Your task to perform on an android device: Go to Maps Image 0: 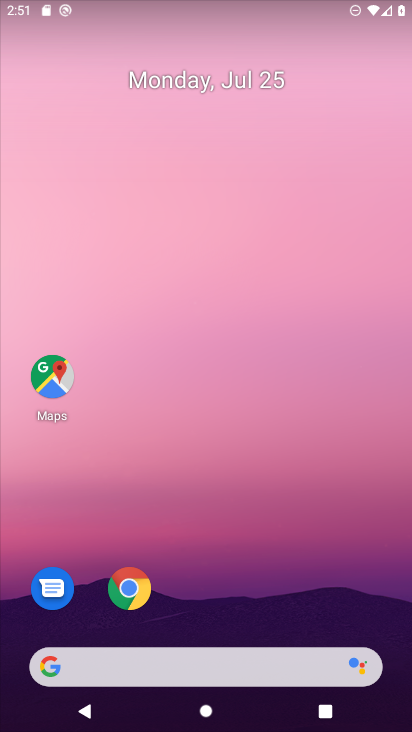
Step 0: click (48, 383)
Your task to perform on an android device: Go to Maps Image 1: 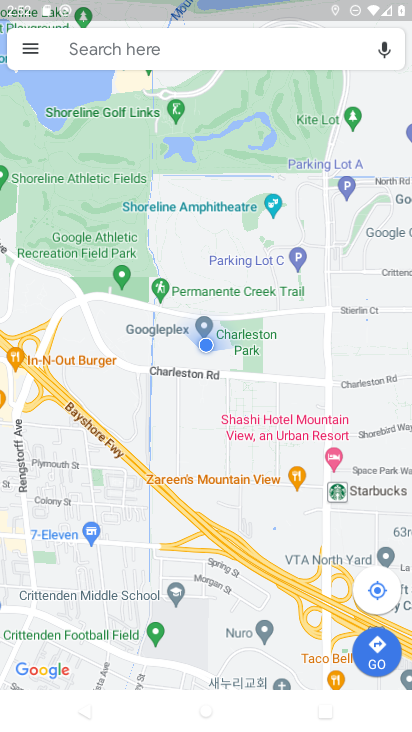
Step 1: task complete